Your task to perform on an android device: toggle javascript in the chrome app Image 0: 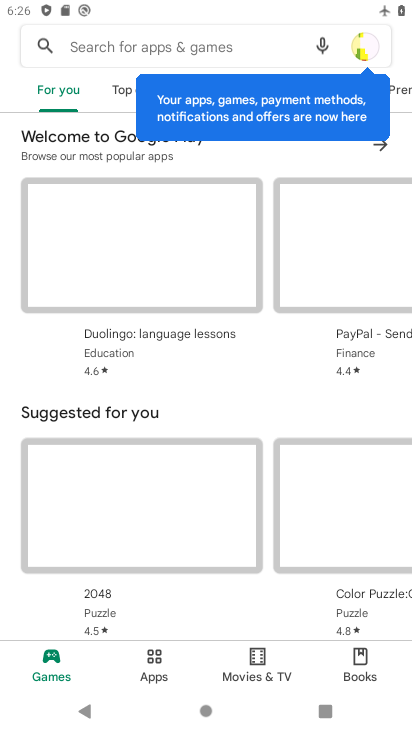
Step 0: press home button
Your task to perform on an android device: toggle javascript in the chrome app Image 1: 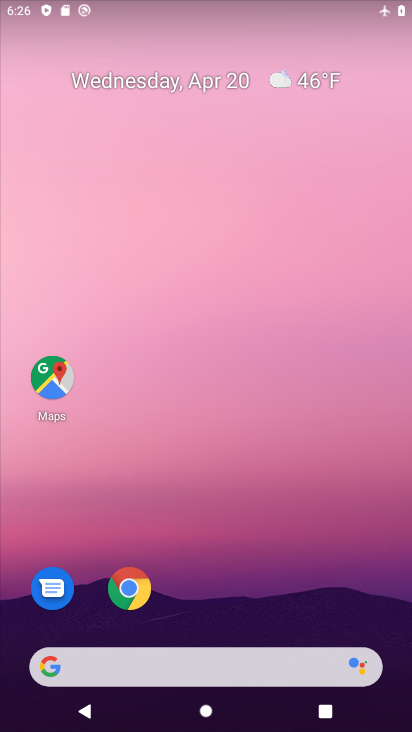
Step 1: click (131, 588)
Your task to perform on an android device: toggle javascript in the chrome app Image 2: 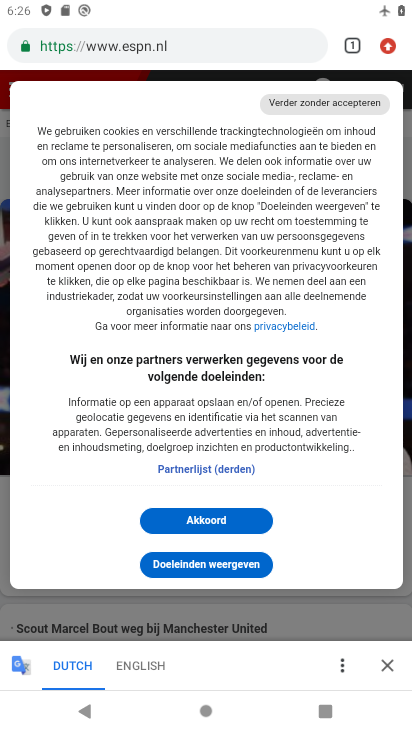
Step 2: drag from (369, 3) to (392, 708)
Your task to perform on an android device: toggle javascript in the chrome app Image 3: 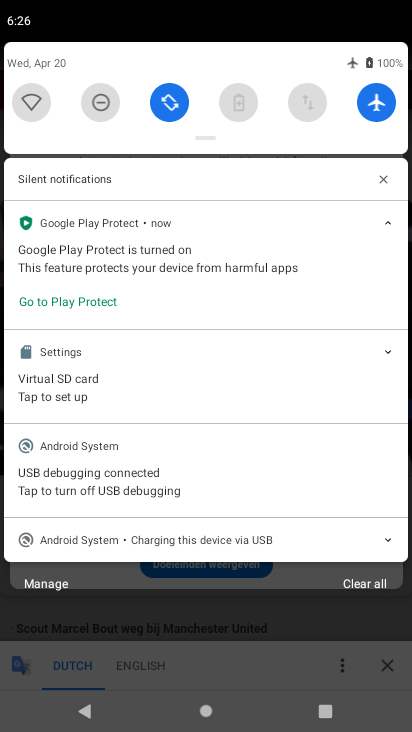
Step 3: click (376, 95)
Your task to perform on an android device: toggle javascript in the chrome app Image 4: 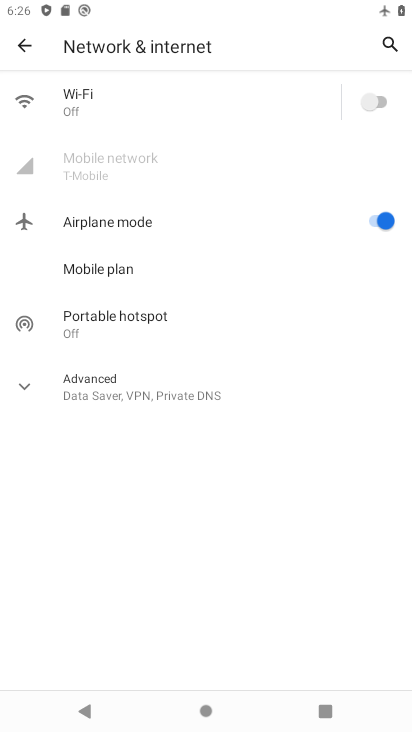
Step 4: click (382, 217)
Your task to perform on an android device: toggle javascript in the chrome app Image 5: 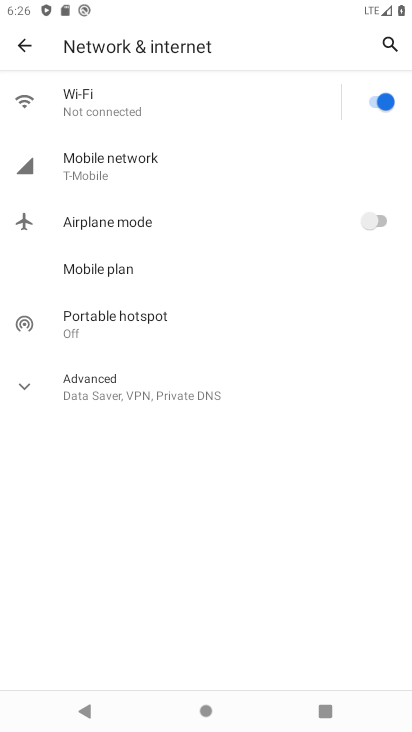
Step 5: press back button
Your task to perform on an android device: toggle javascript in the chrome app Image 6: 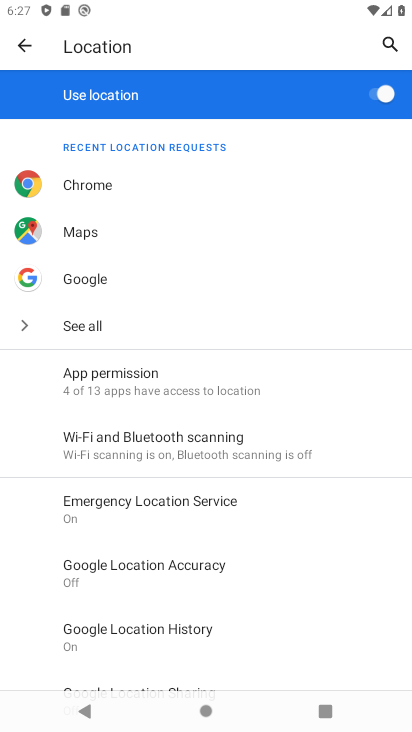
Step 6: press home button
Your task to perform on an android device: toggle javascript in the chrome app Image 7: 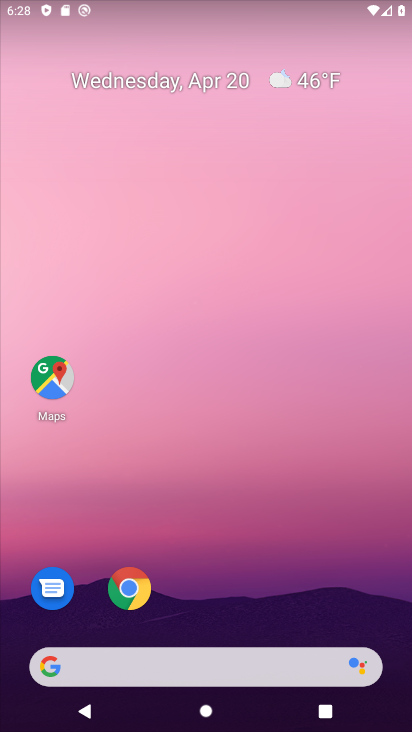
Step 7: click (120, 589)
Your task to perform on an android device: toggle javascript in the chrome app Image 8: 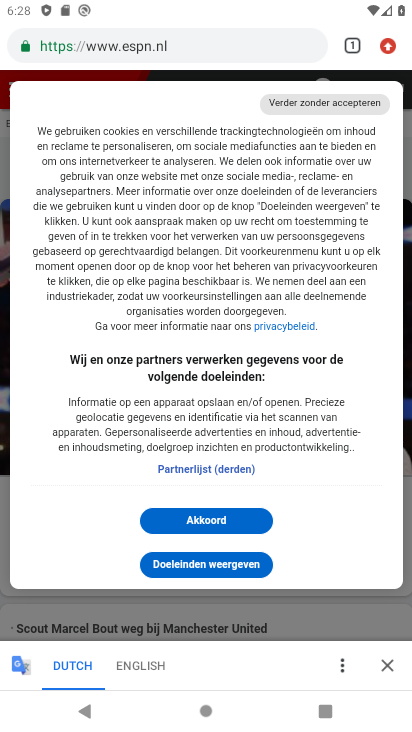
Step 8: drag from (389, 45) to (223, 595)
Your task to perform on an android device: toggle javascript in the chrome app Image 9: 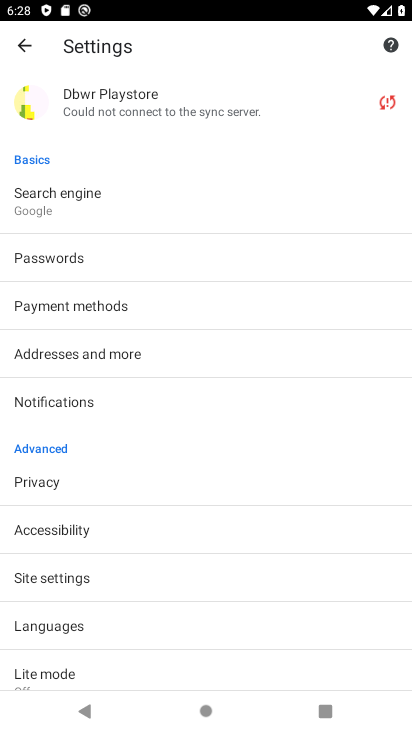
Step 9: click (52, 580)
Your task to perform on an android device: toggle javascript in the chrome app Image 10: 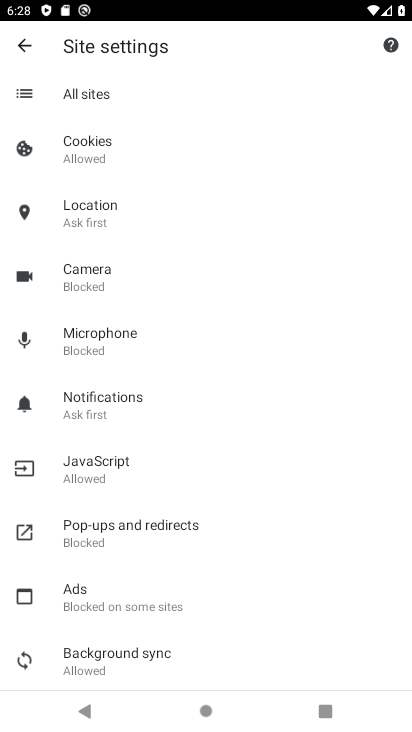
Step 10: click (75, 476)
Your task to perform on an android device: toggle javascript in the chrome app Image 11: 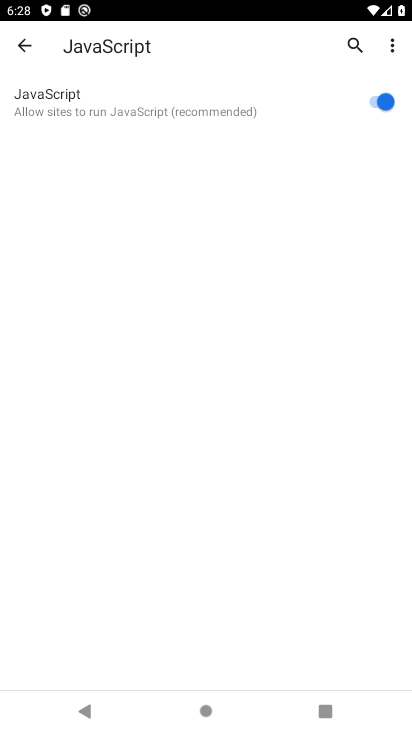
Step 11: click (370, 98)
Your task to perform on an android device: toggle javascript in the chrome app Image 12: 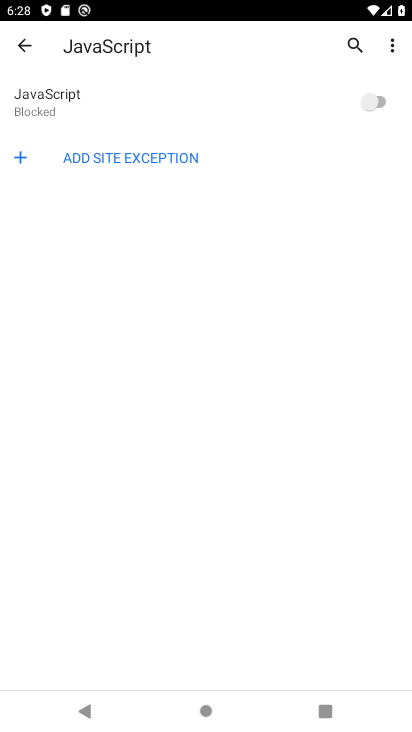
Step 12: task complete